Your task to perform on an android device: Open display settings Image 0: 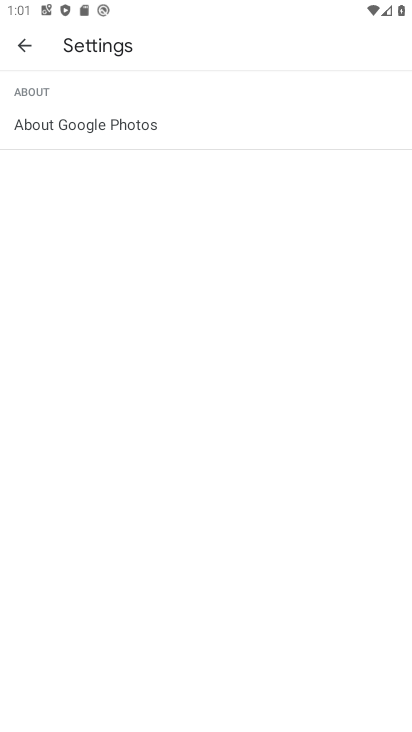
Step 0: press home button
Your task to perform on an android device: Open display settings Image 1: 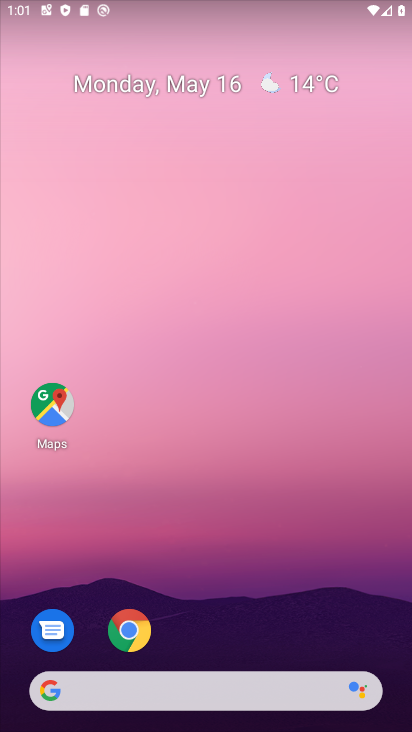
Step 1: drag from (295, 558) to (298, 4)
Your task to perform on an android device: Open display settings Image 2: 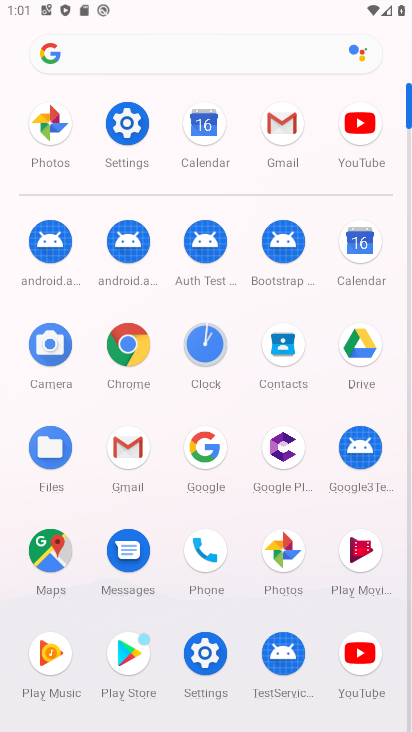
Step 2: click (125, 123)
Your task to perform on an android device: Open display settings Image 3: 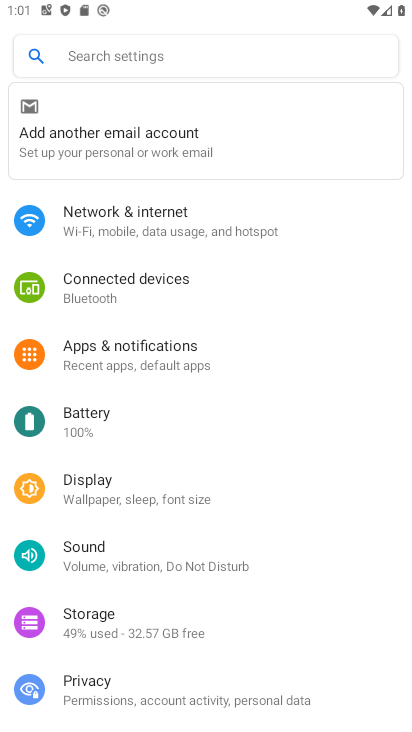
Step 3: click (123, 502)
Your task to perform on an android device: Open display settings Image 4: 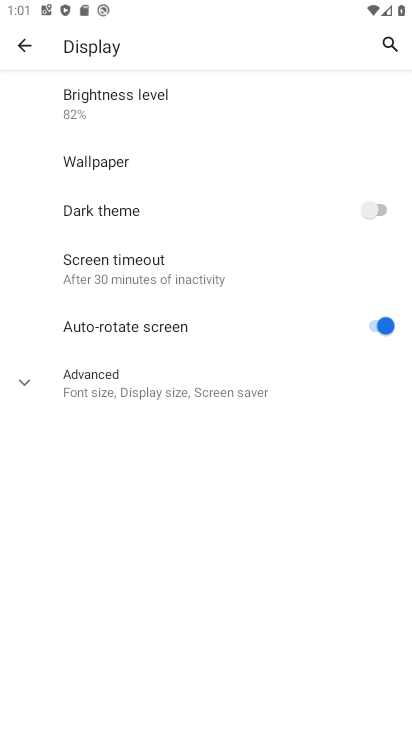
Step 4: task complete